Your task to perform on an android device: change the clock display to digital Image 0: 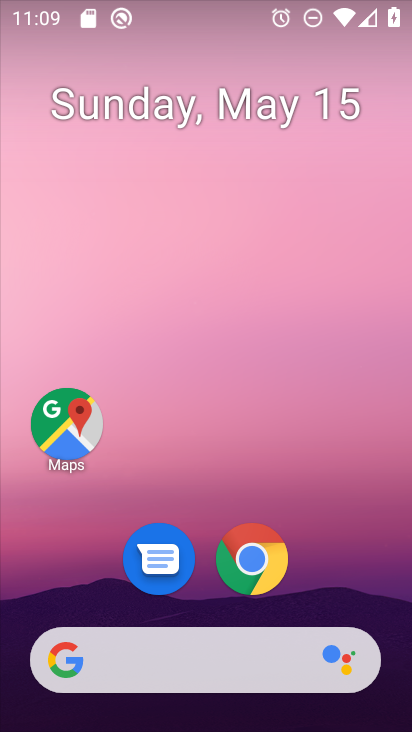
Step 0: drag from (363, 575) to (321, 129)
Your task to perform on an android device: change the clock display to digital Image 1: 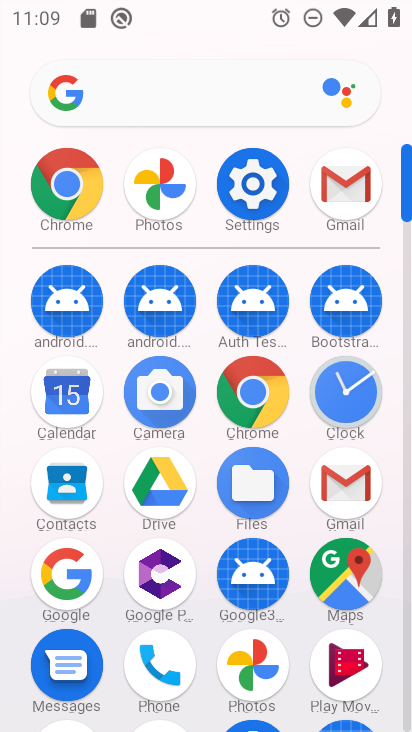
Step 1: click (362, 424)
Your task to perform on an android device: change the clock display to digital Image 2: 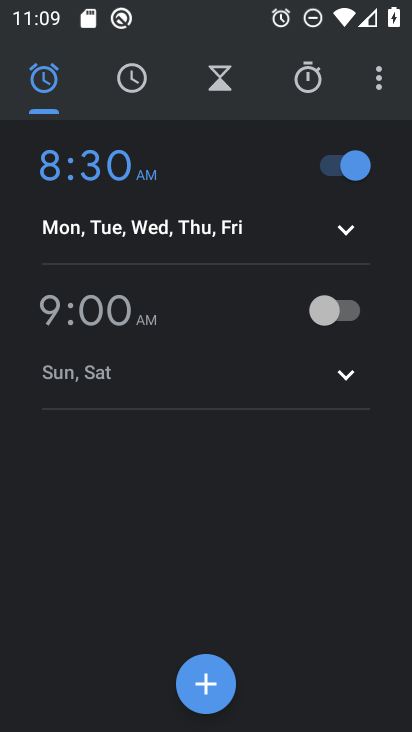
Step 2: click (381, 100)
Your task to perform on an android device: change the clock display to digital Image 3: 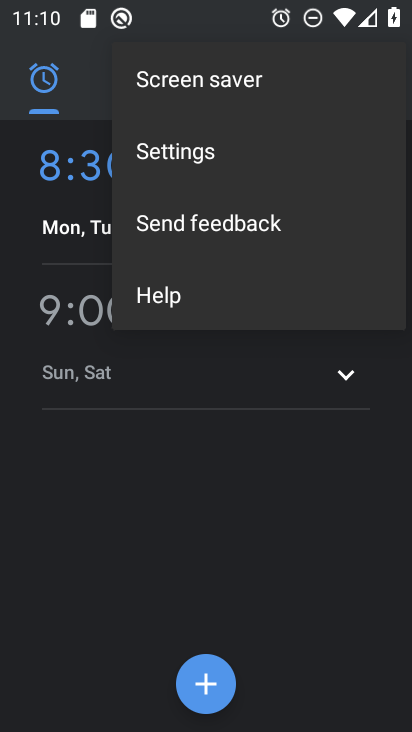
Step 3: click (282, 157)
Your task to perform on an android device: change the clock display to digital Image 4: 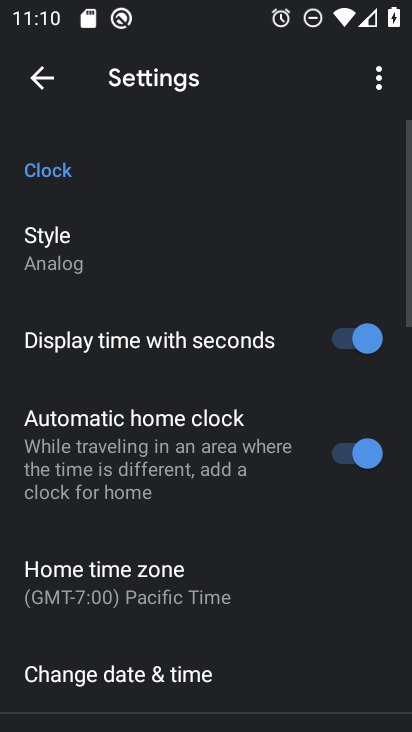
Step 4: click (237, 274)
Your task to perform on an android device: change the clock display to digital Image 5: 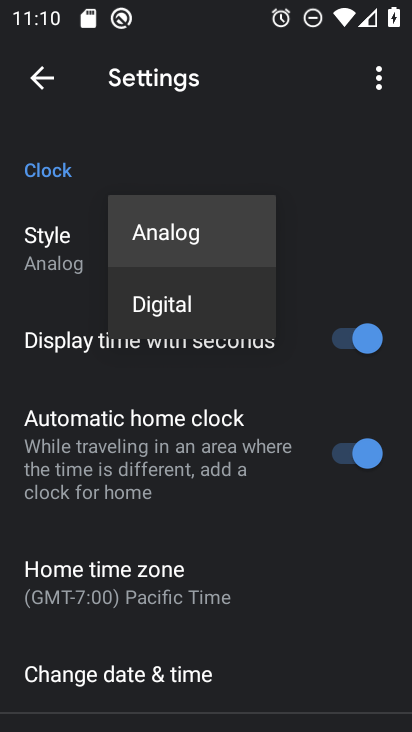
Step 5: click (195, 314)
Your task to perform on an android device: change the clock display to digital Image 6: 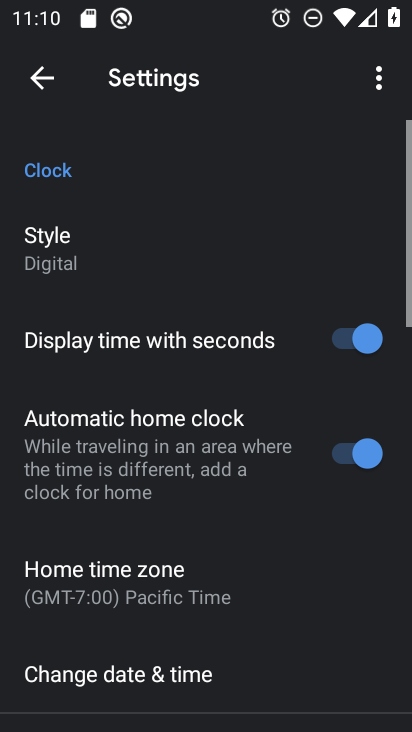
Step 6: task complete